Your task to perform on an android device: read, delete, or share a saved page in the chrome app Image 0: 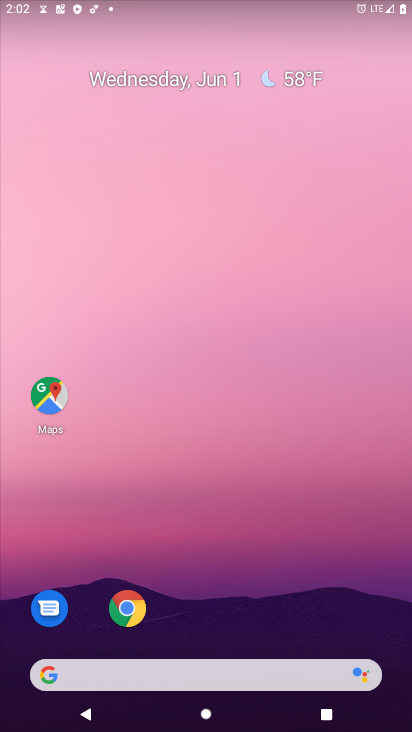
Step 0: click (140, 607)
Your task to perform on an android device: read, delete, or share a saved page in the chrome app Image 1: 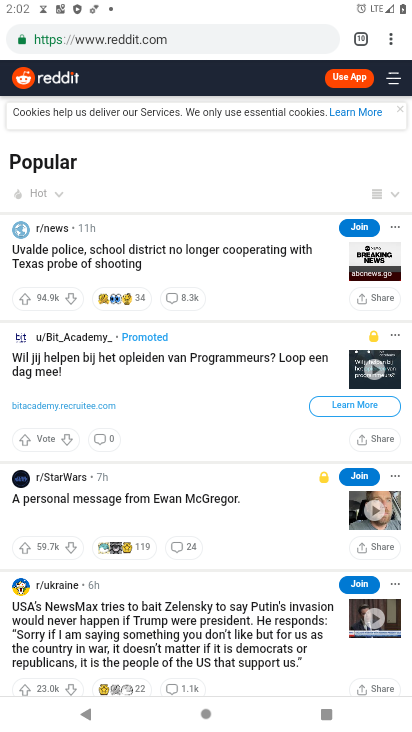
Step 1: click (395, 35)
Your task to perform on an android device: read, delete, or share a saved page in the chrome app Image 2: 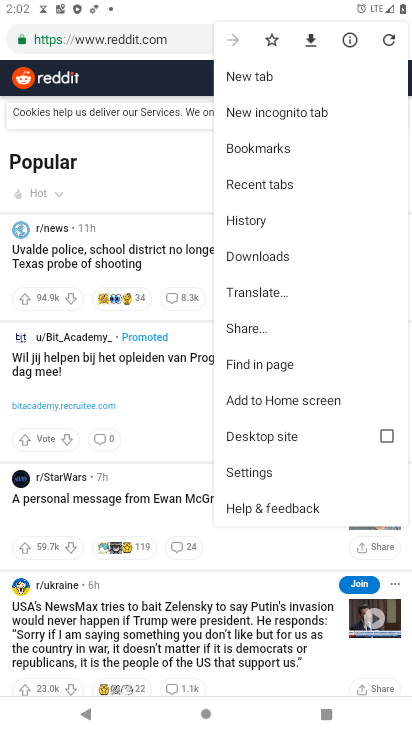
Step 2: click (302, 469)
Your task to perform on an android device: read, delete, or share a saved page in the chrome app Image 3: 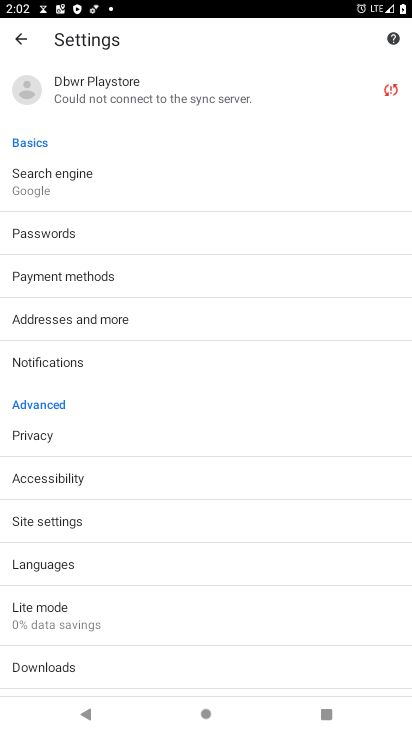
Step 3: task complete